Your task to perform on an android device: turn on wifi Image 0: 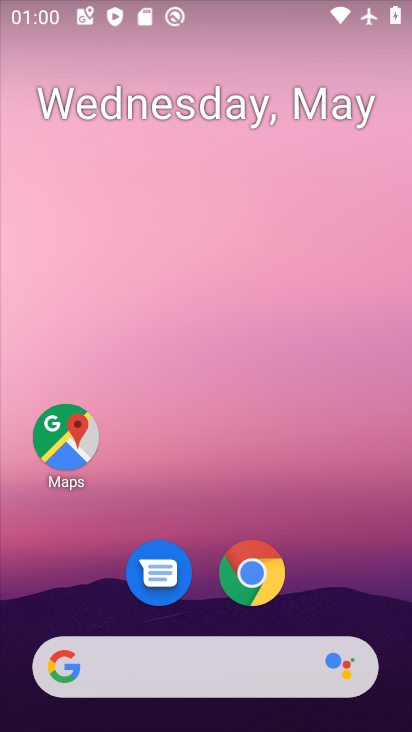
Step 0: drag from (348, 581) to (369, 181)
Your task to perform on an android device: turn on wifi Image 1: 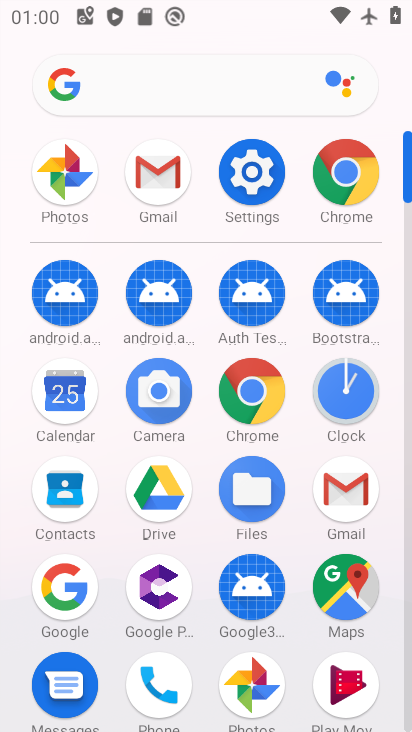
Step 1: click (254, 168)
Your task to perform on an android device: turn on wifi Image 2: 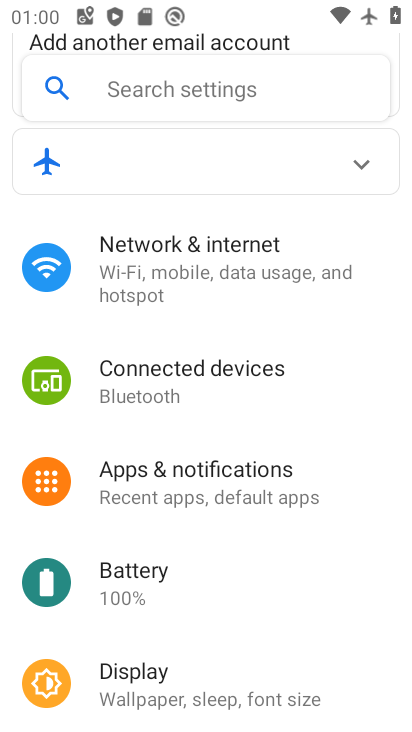
Step 2: click (203, 266)
Your task to perform on an android device: turn on wifi Image 3: 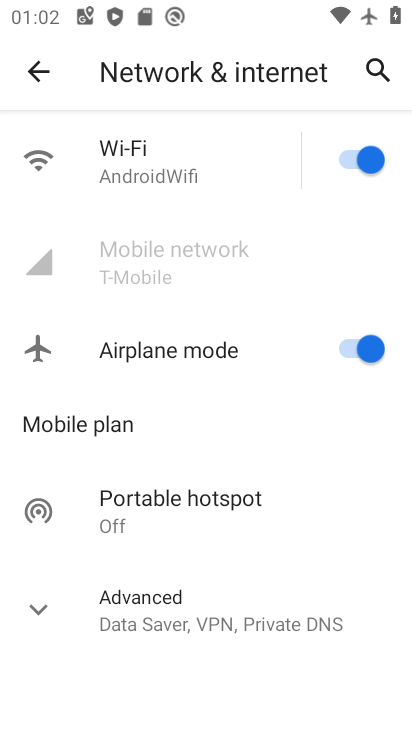
Step 3: task complete